Your task to perform on an android device: turn on translation in the chrome app Image 0: 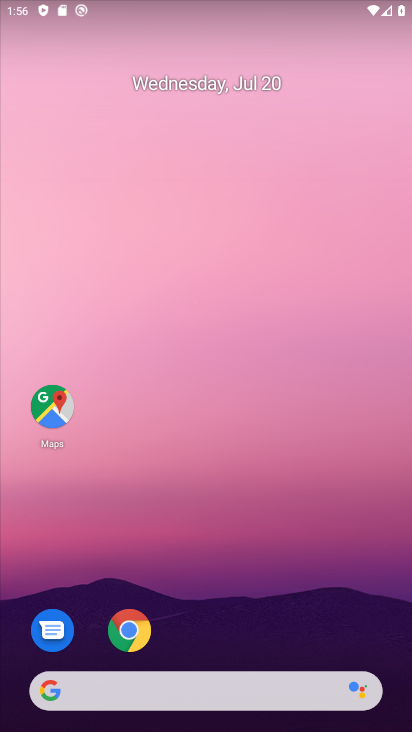
Step 0: press home button
Your task to perform on an android device: turn on translation in the chrome app Image 1: 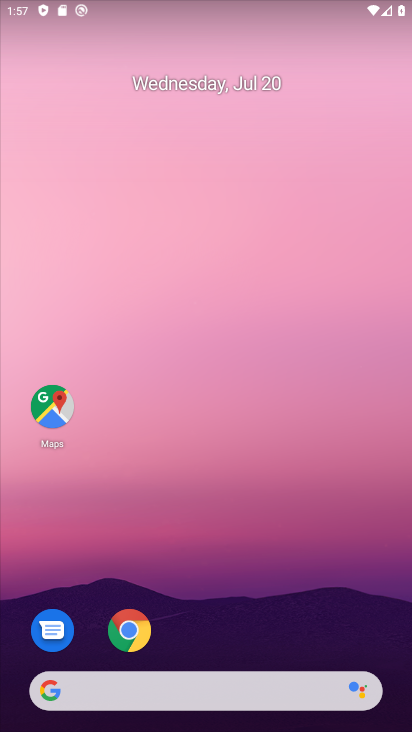
Step 1: click (118, 630)
Your task to perform on an android device: turn on translation in the chrome app Image 2: 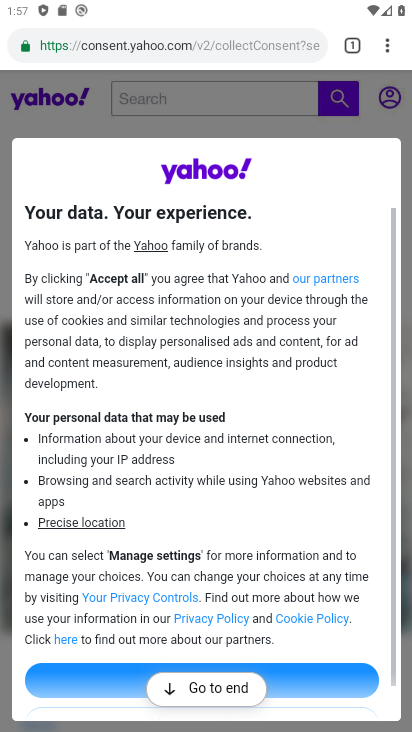
Step 2: press home button
Your task to perform on an android device: turn on translation in the chrome app Image 3: 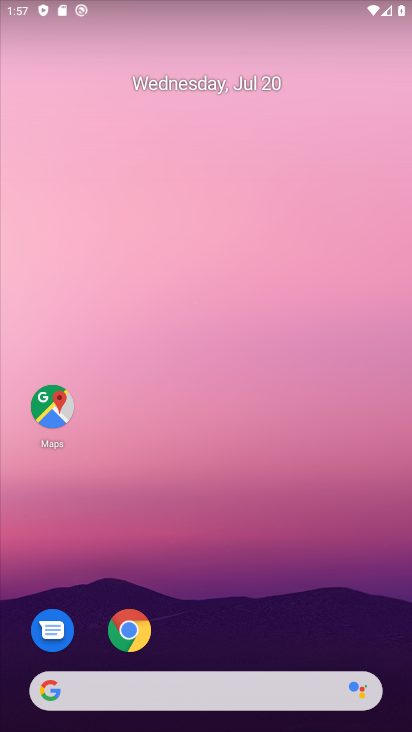
Step 3: click (121, 634)
Your task to perform on an android device: turn on translation in the chrome app Image 4: 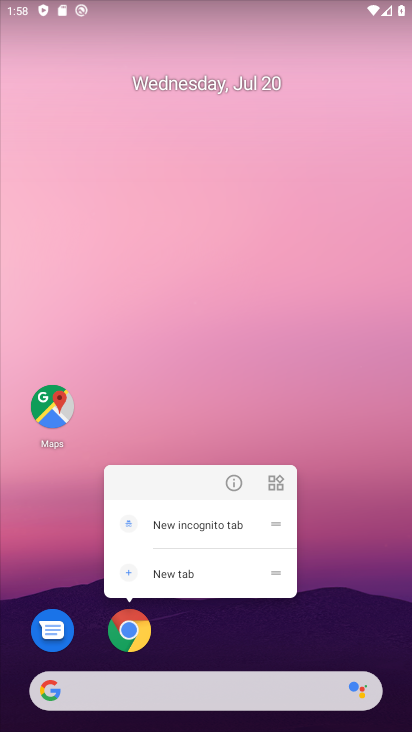
Step 4: click (132, 631)
Your task to perform on an android device: turn on translation in the chrome app Image 5: 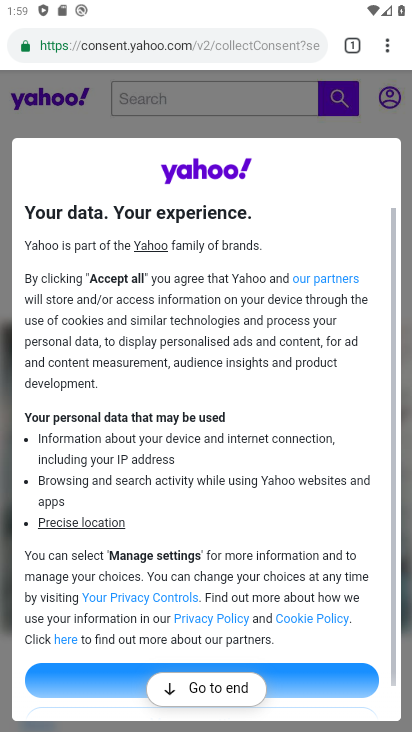
Step 5: click (385, 44)
Your task to perform on an android device: turn on translation in the chrome app Image 6: 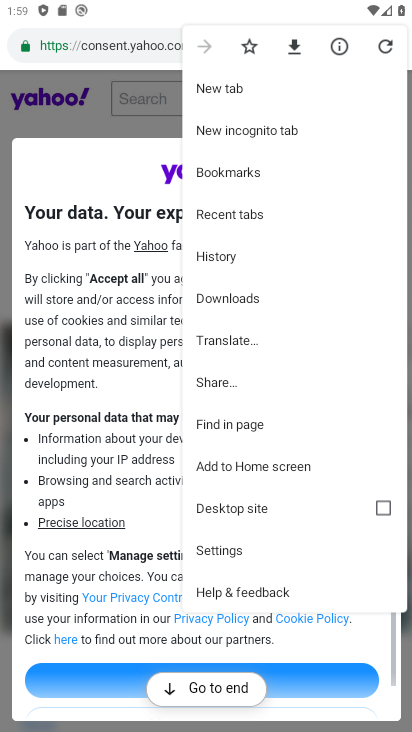
Step 6: click (209, 546)
Your task to perform on an android device: turn on translation in the chrome app Image 7: 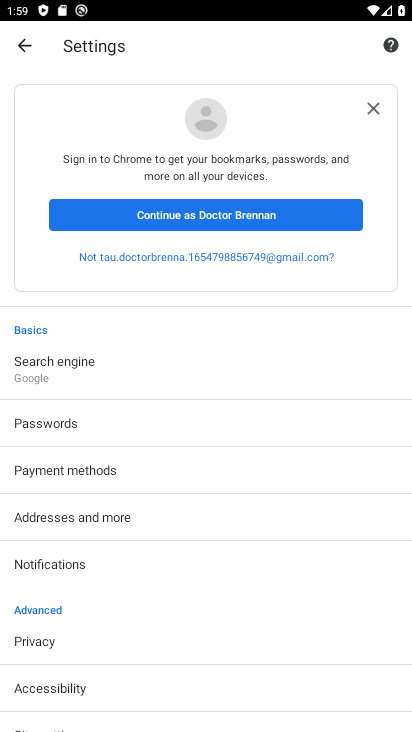
Step 7: drag from (82, 687) to (246, 198)
Your task to perform on an android device: turn on translation in the chrome app Image 8: 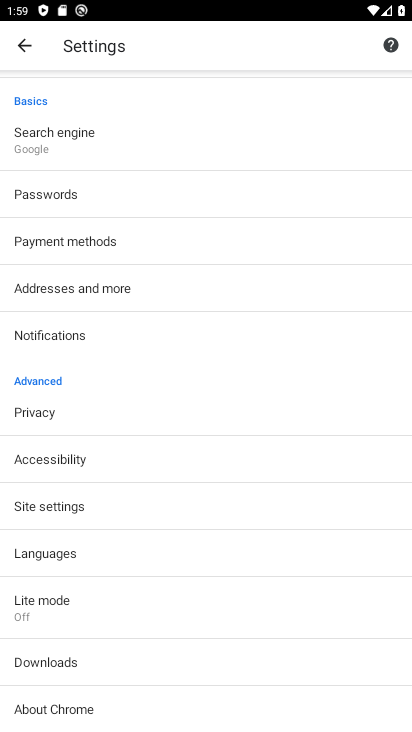
Step 8: drag from (16, 614) to (186, 298)
Your task to perform on an android device: turn on translation in the chrome app Image 9: 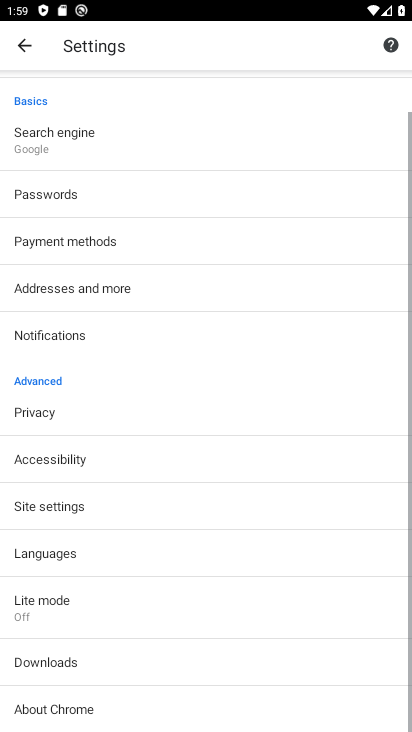
Step 9: click (76, 553)
Your task to perform on an android device: turn on translation in the chrome app Image 10: 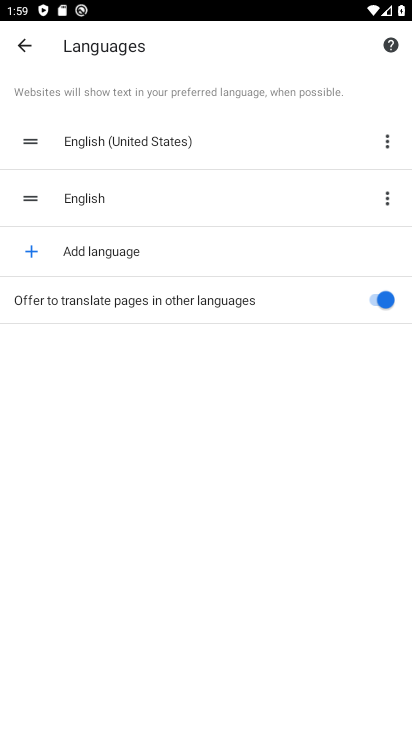
Step 10: task complete